Your task to perform on an android device: show emergency info Image 0: 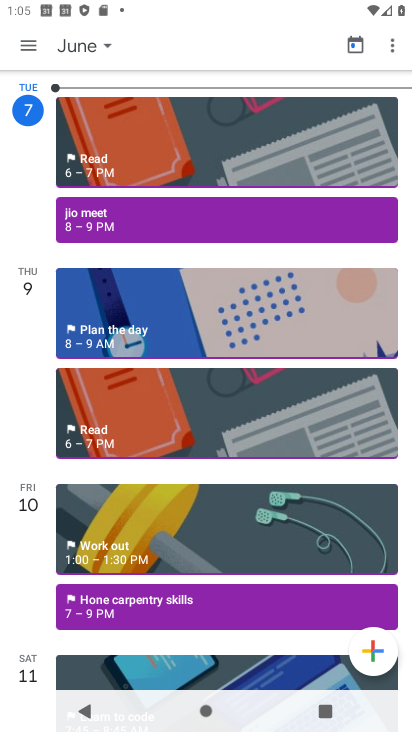
Step 0: task complete